Your task to perform on an android device: see tabs open on other devices in the chrome app Image 0: 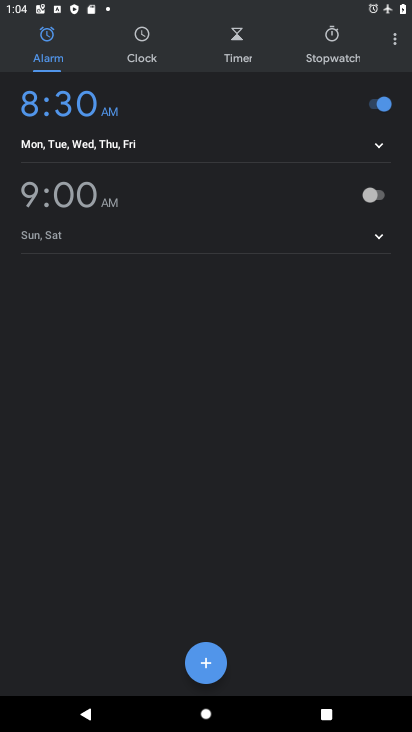
Step 0: press home button
Your task to perform on an android device: see tabs open on other devices in the chrome app Image 1: 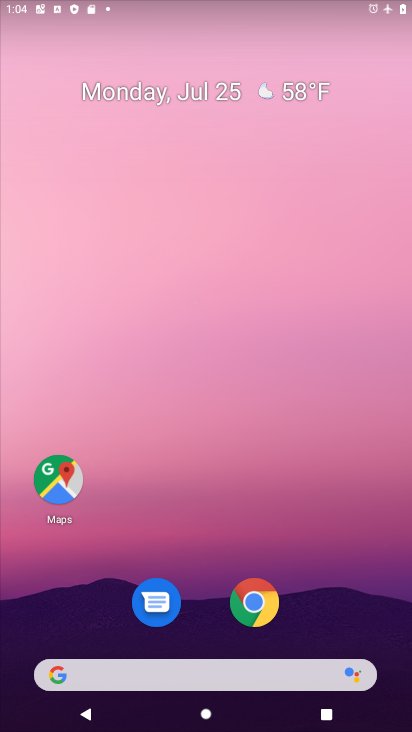
Step 1: click (256, 602)
Your task to perform on an android device: see tabs open on other devices in the chrome app Image 2: 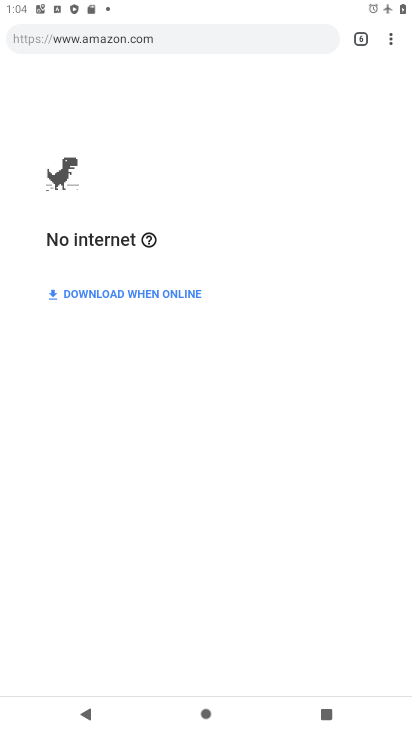
Step 2: click (389, 47)
Your task to perform on an android device: see tabs open on other devices in the chrome app Image 3: 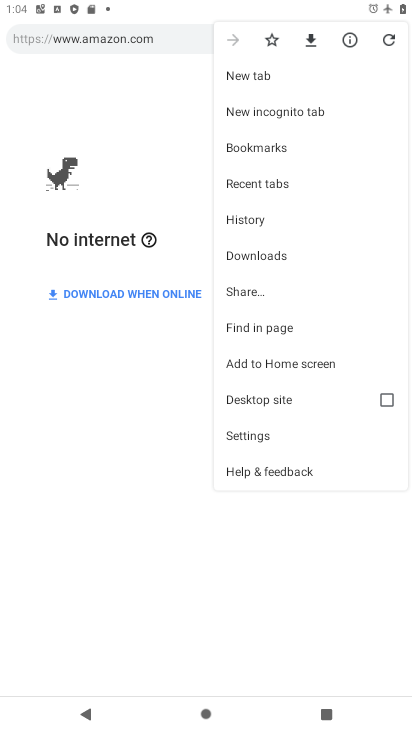
Step 3: click (307, 185)
Your task to perform on an android device: see tabs open on other devices in the chrome app Image 4: 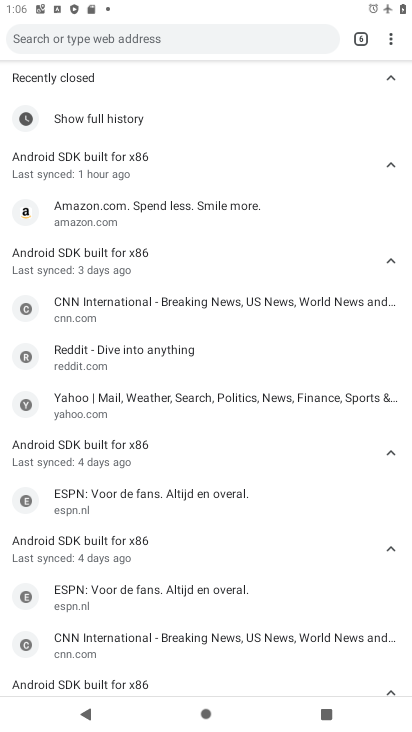
Step 4: task complete